Your task to perform on an android device: turn on the 24-hour format for clock Image 0: 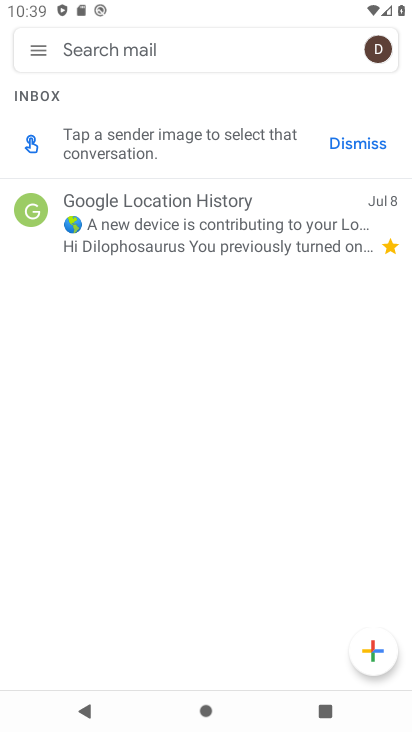
Step 0: press home button
Your task to perform on an android device: turn on the 24-hour format for clock Image 1: 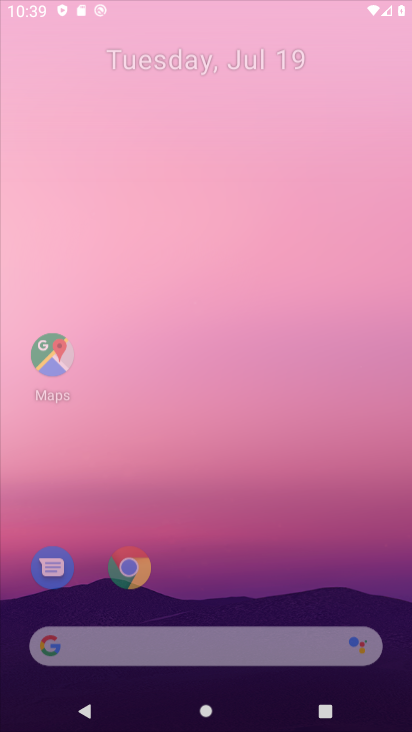
Step 1: drag from (381, 611) to (157, 42)
Your task to perform on an android device: turn on the 24-hour format for clock Image 2: 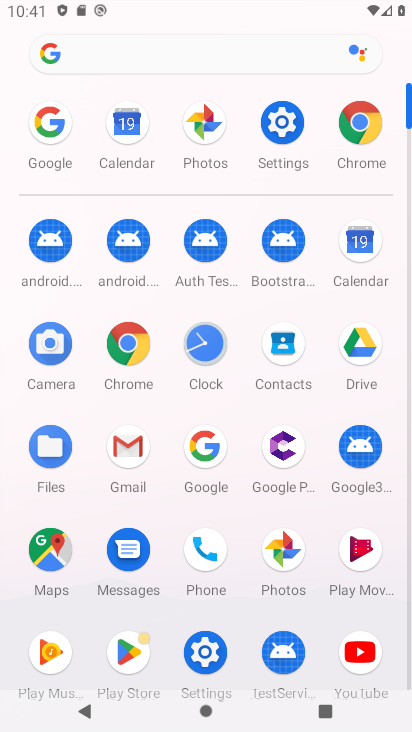
Step 2: click (186, 343)
Your task to perform on an android device: turn on the 24-hour format for clock Image 3: 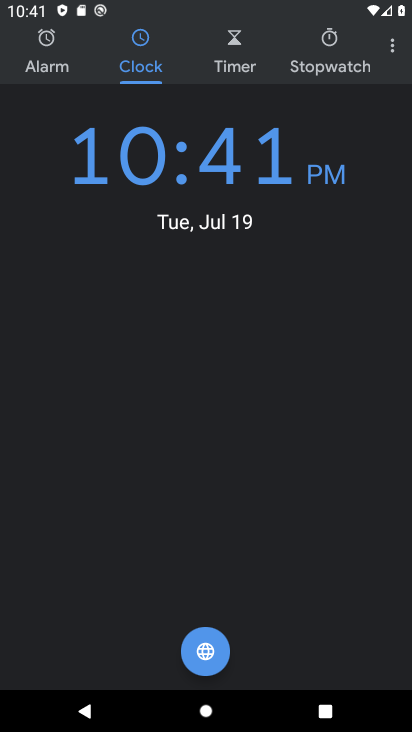
Step 3: click (391, 50)
Your task to perform on an android device: turn on the 24-hour format for clock Image 4: 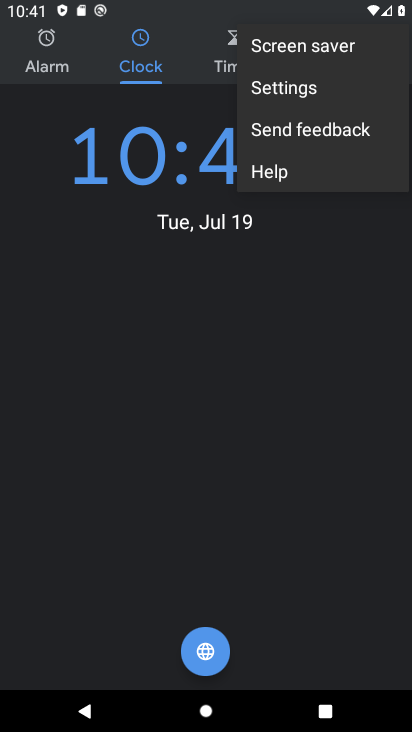
Step 4: click (308, 82)
Your task to perform on an android device: turn on the 24-hour format for clock Image 5: 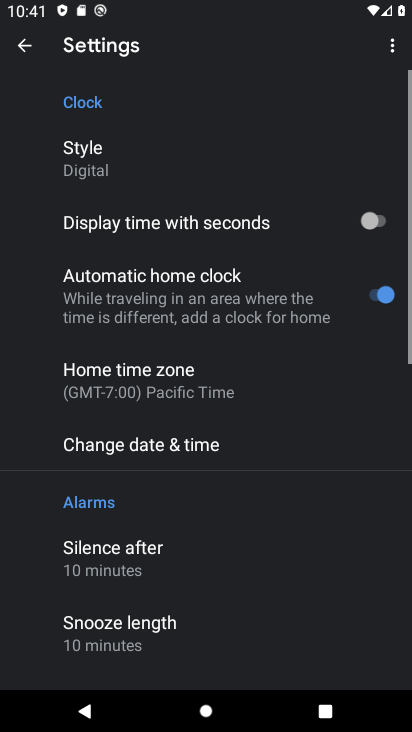
Step 5: click (123, 438)
Your task to perform on an android device: turn on the 24-hour format for clock Image 6: 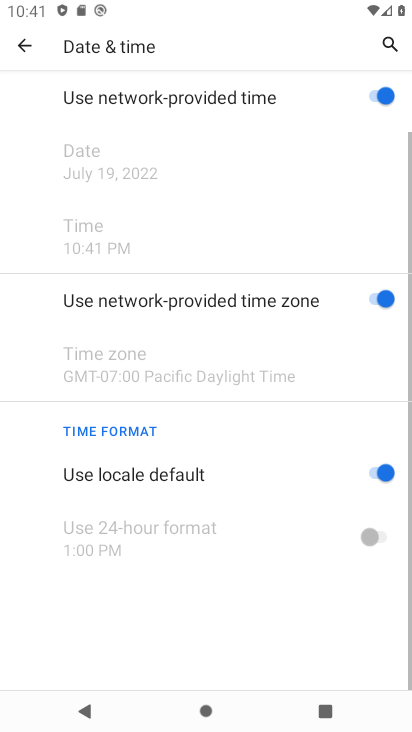
Step 6: task complete